Your task to perform on an android device: Open Chrome and go to settings Image 0: 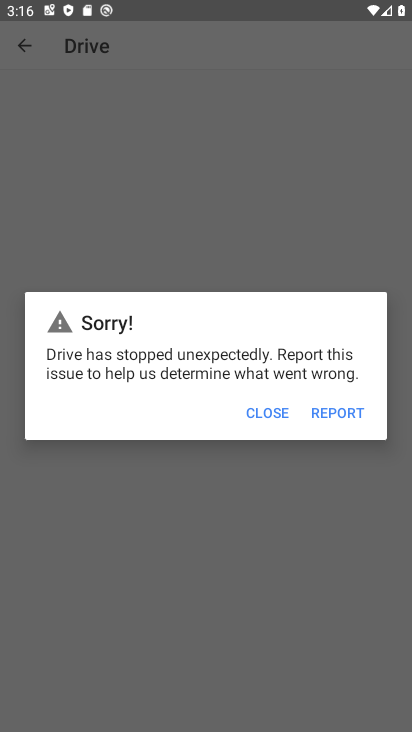
Step 0: press home button
Your task to perform on an android device: Open Chrome and go to settings Image 1: 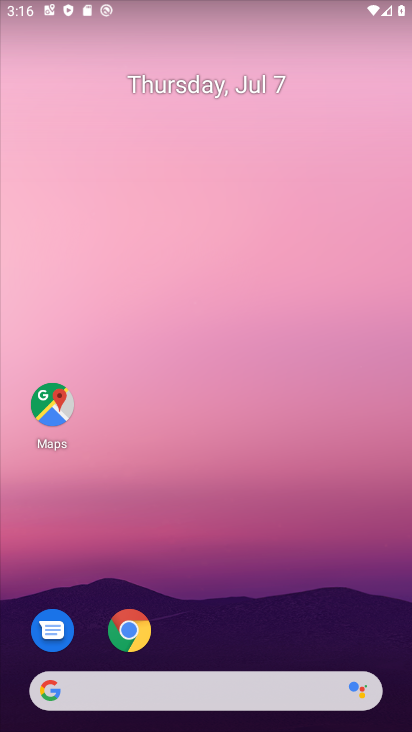
Step 1: click (138, 640)
Your task to perform on an android device: Open Chrome and go to settings Image 2: 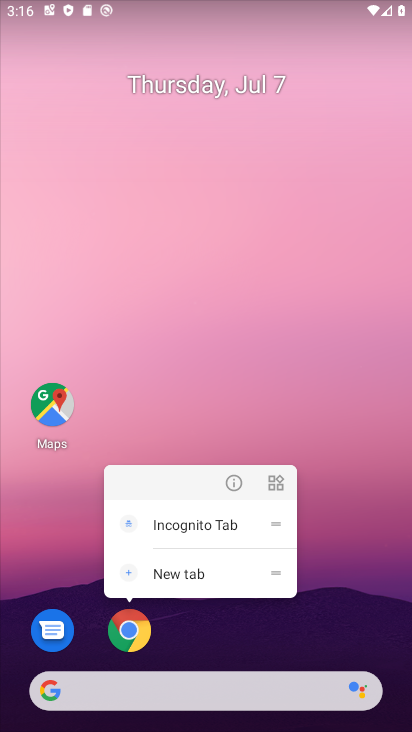
Step 2: click (139, 635)
Your task to perform on an android device: Open Chrome and go to settings Image 3: 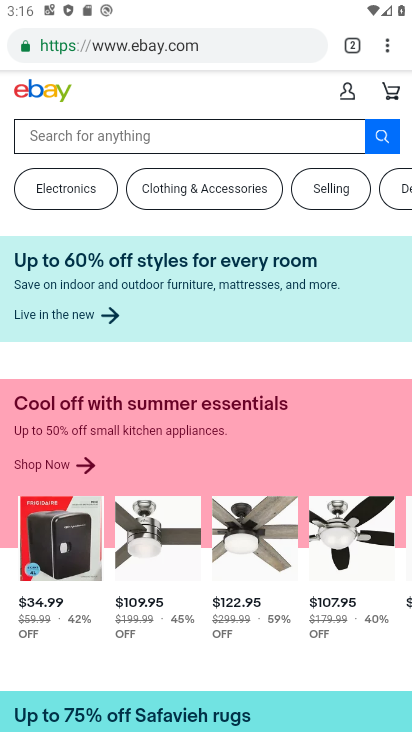
Step 3: click (388, 42)
Your task to perform on an android device: Open Chrome and go to settings Image 4: 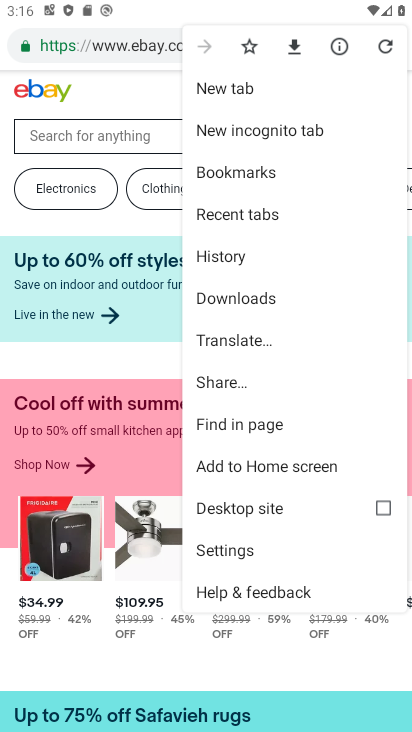
Step 4: click (246, 555)
Your task to perform on an android device: Open Chrome and go to settings Image 5: 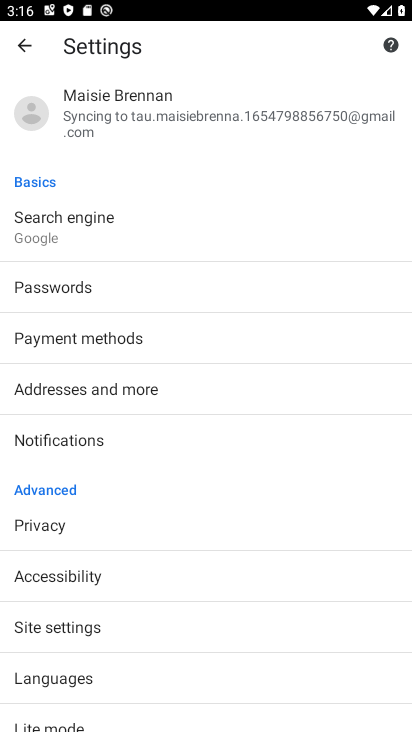
Step 5: task complete